Your task to perform on an android device: When is my next meeting? Image 0: 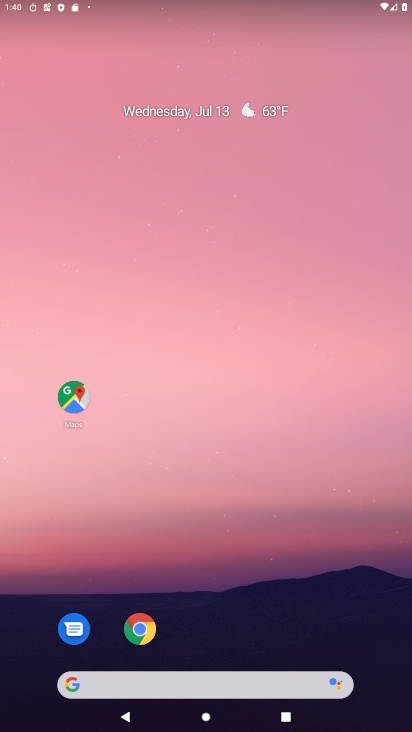
Step 0: drag from (189, 548) to (182, 286)
Your task to perform on an android device: When is my next meeting? Image 1: 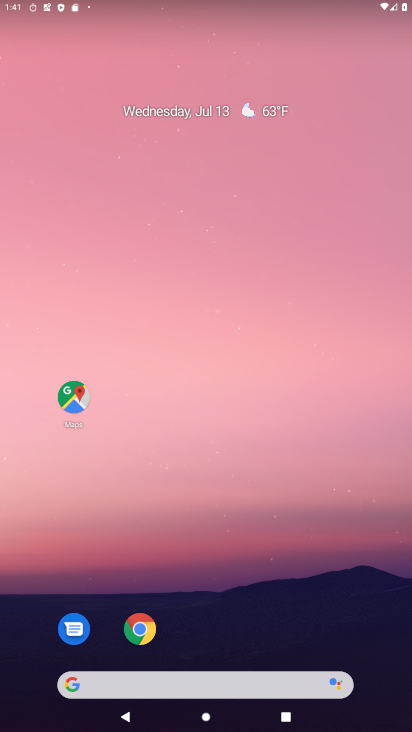
Step 1: drag from (175, 617) to (214, 303)
Your task to perform on an android device: When is my next meeting? Image 2: 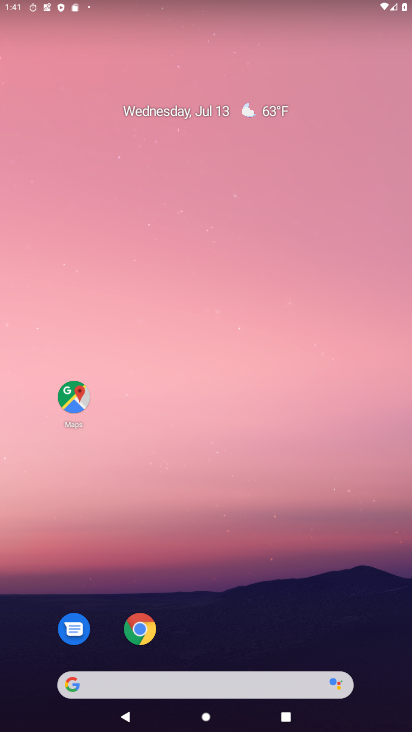
Step 2: drag from (208, 649) to (272, 214)
Your task to perform on an android device: When is my next meeting? Image 3: 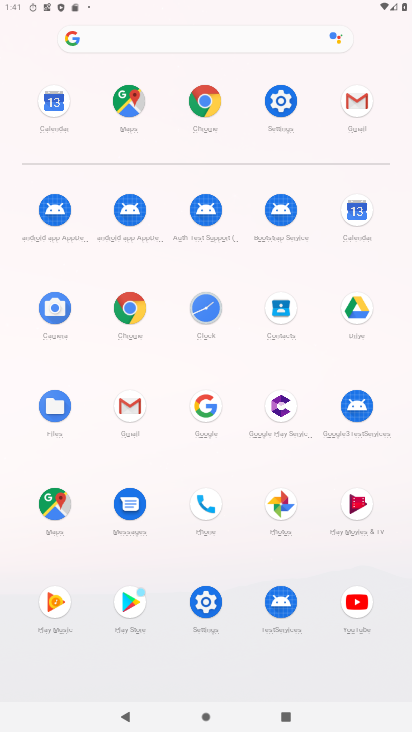
Step 3: click (362, 203)
Your task to perform on an android device: When is my next meeting? Image 4: 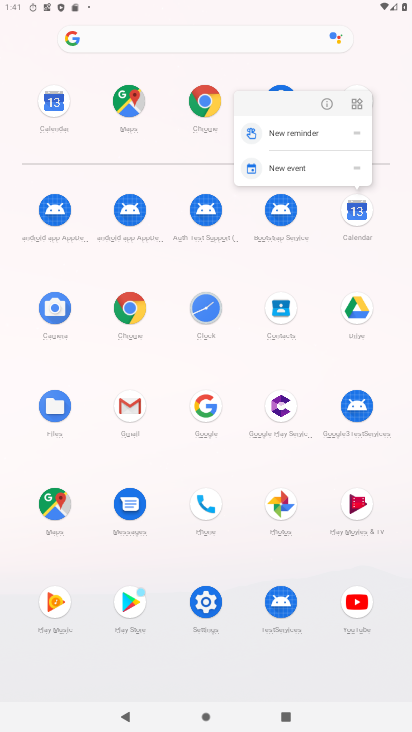
Step 4: click (326, 106)
Your task to perform on an android device: When is my next meeting? Image 5: 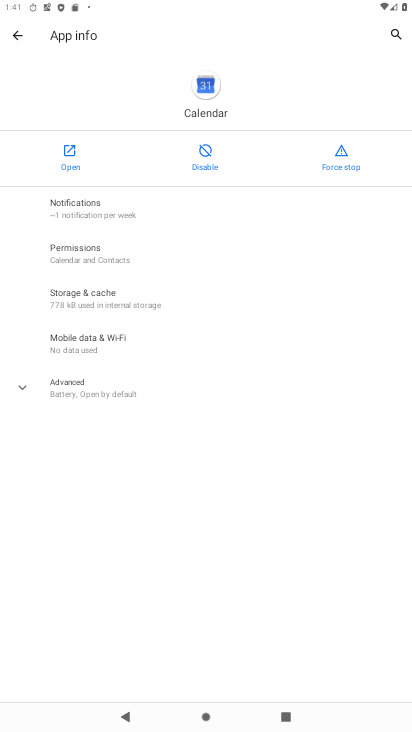
Step 5: click (84, 154)
Your task to perform on an android device: When is my next meeting? Image 6: 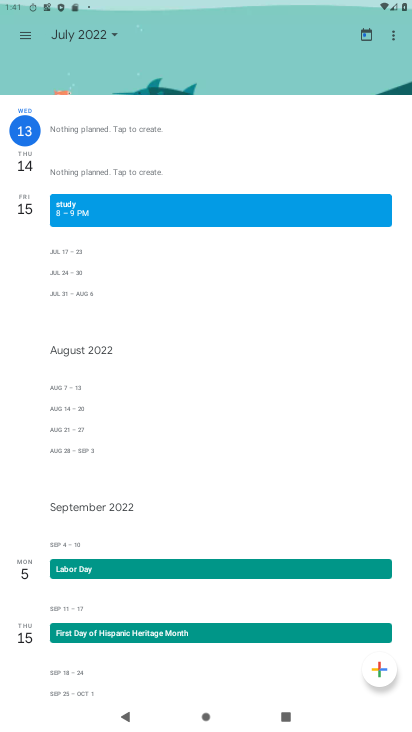
Step 6: click (363, 31)
Your task to perform on an android device: When is my next meeting? Image 7: 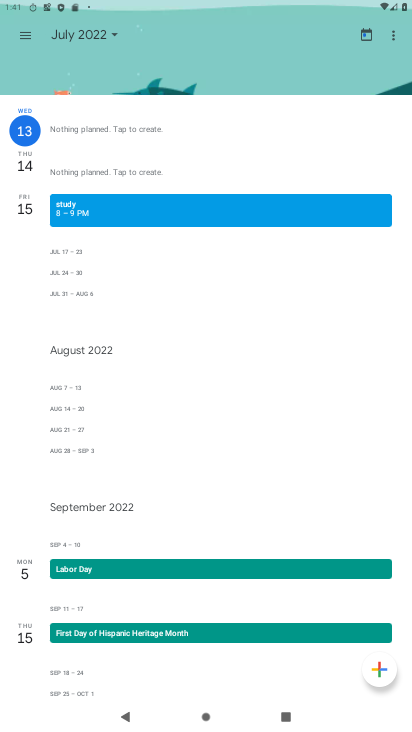
Step 7: click (368, 34)
Your task to perform on an android device: When is my next meeting? Image 8: 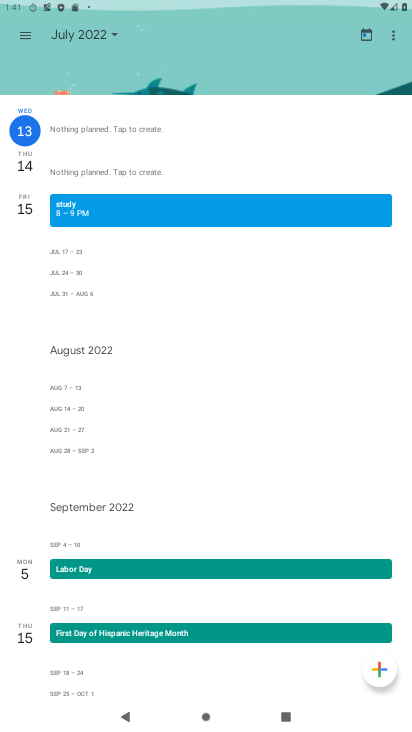
Step 8: task complete